Your task to perform on an android device: change keyboard looks Image 0: 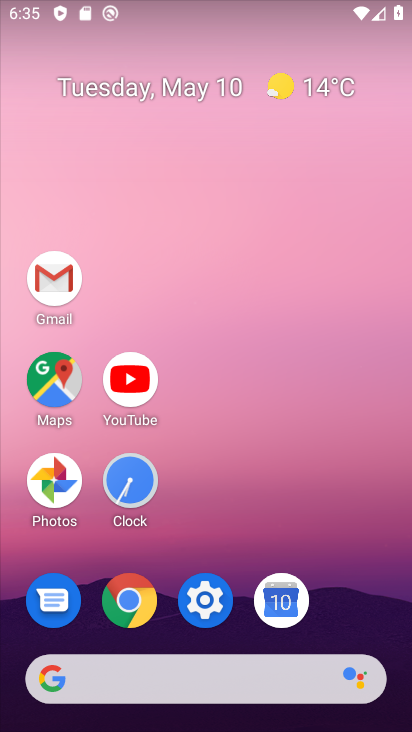
Step 0: click (208, 607)
Your task to perform on an android device: change keyboard looks Image 1: 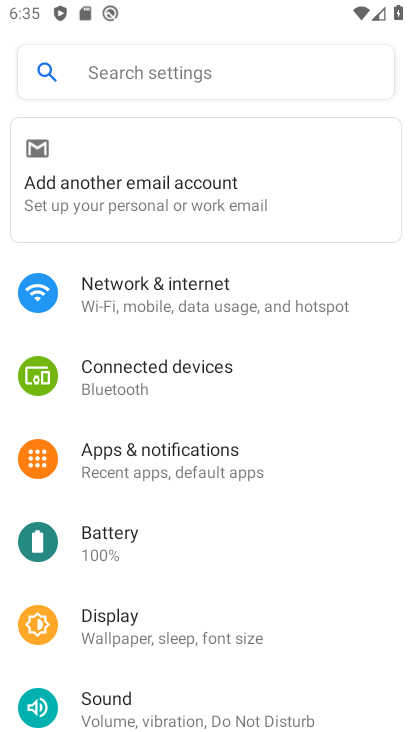
Step 1: drag from (251, 589) to (237, 101)
Your task to perform on an android device: change keyboard looks Image 2: 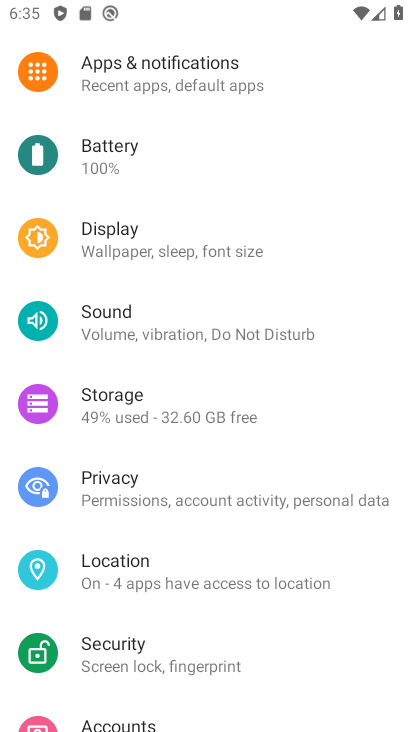
Step 2: drag from (193, 595) to (176, 139)
Your task to perform on an android device: change keyboard looks Image 3: 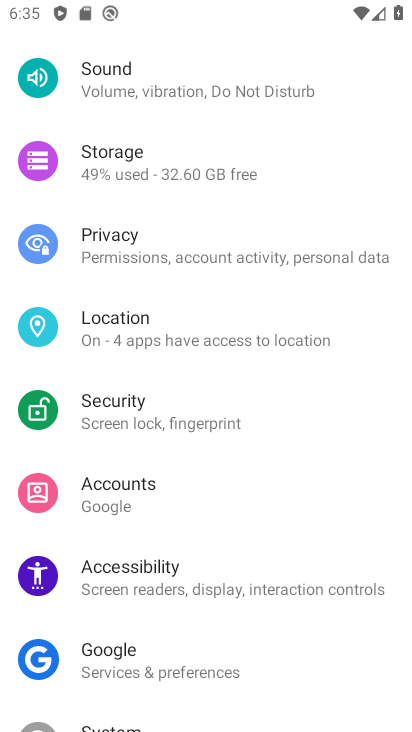
Step 3: drag from (213, 622) to (182, 204)
Your task to perform on an android device: change keyboard looks Image 4: 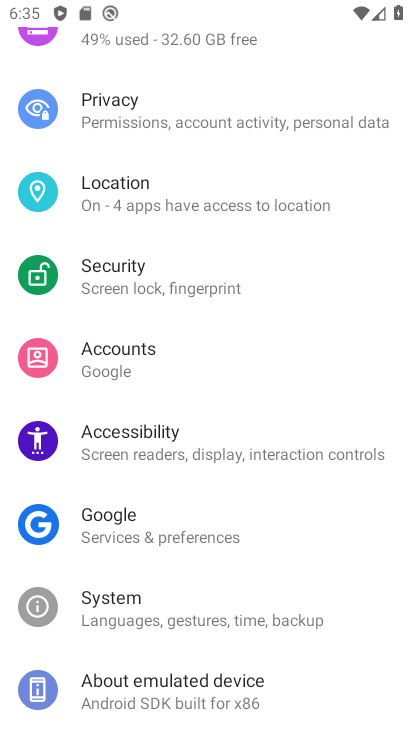
Step 4: click (118, 589)
Your task to perform on an android device: change keyboard looks Image 5: 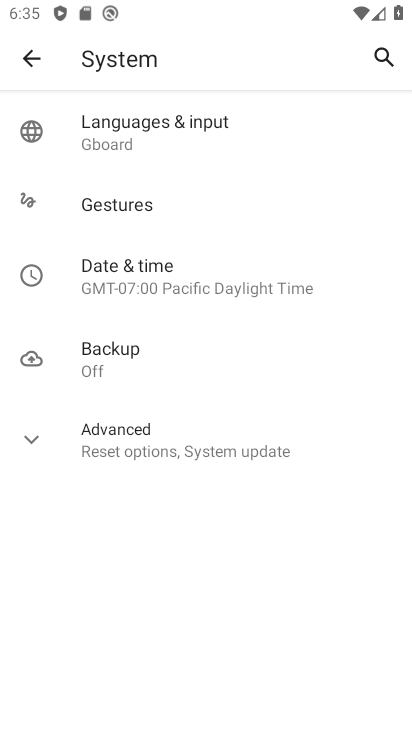
Step 5: click (111, 117)
Your task to perform on an android device: change keyboard looks Image 6: 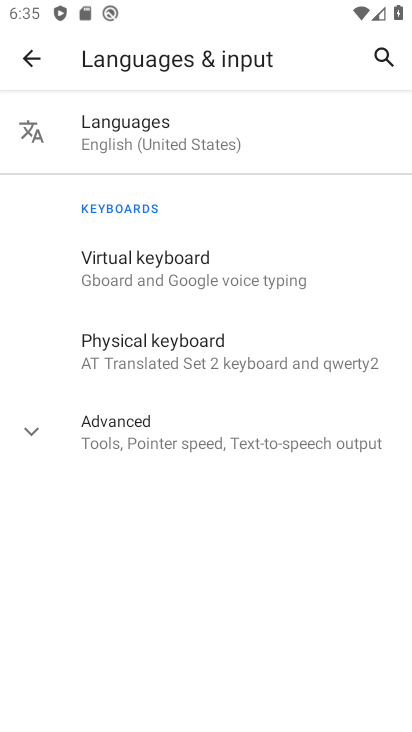
Step 6: click (111, 257)
Your task to perform on an android device: change keyboard looks Image 7: 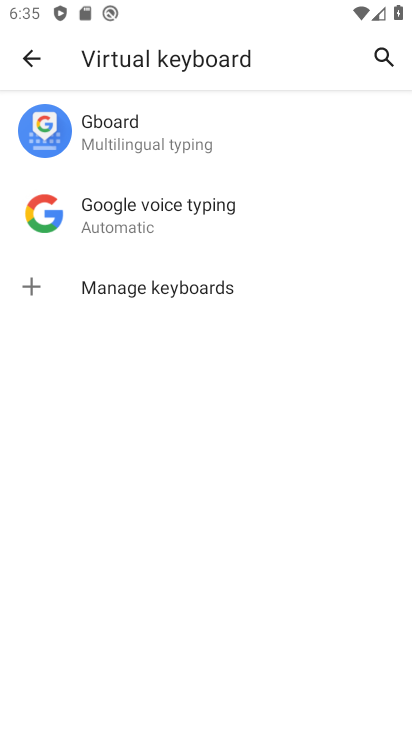
Step 7: click (116, 122)
Your task to perform on an android device: change keyboard looks Image 8: 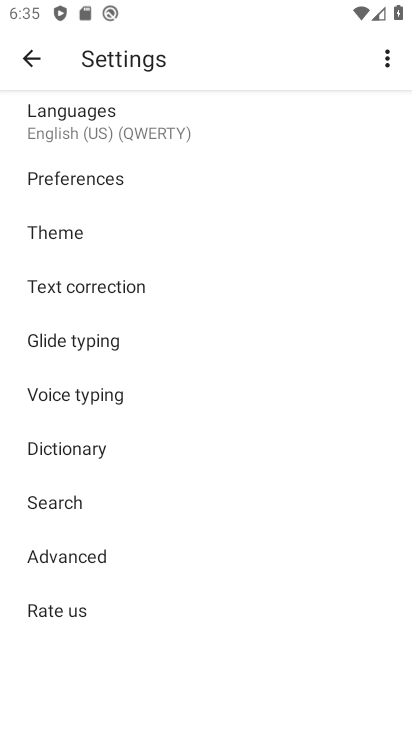
Step 8: click (58, 231)
Your task to perform on an android device: change keyboard looks Image 9: 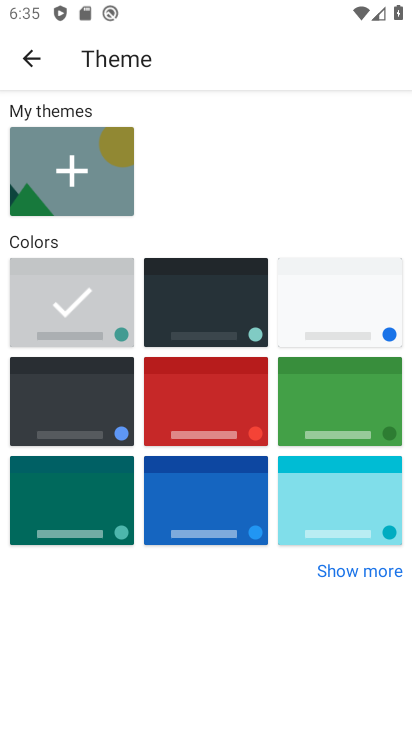
Step 9: click (337, 370)
Your task to perform on an android device: change keyboard looks Image 10: 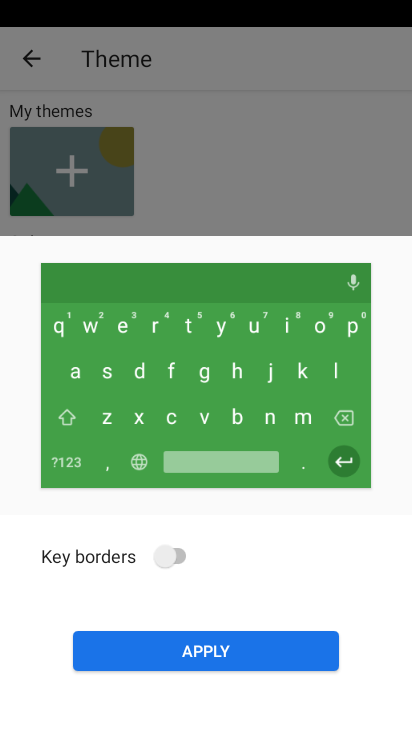
Step 10: click (200, 654)
Your task to perform on an android device: change keyboard looks Image 11: 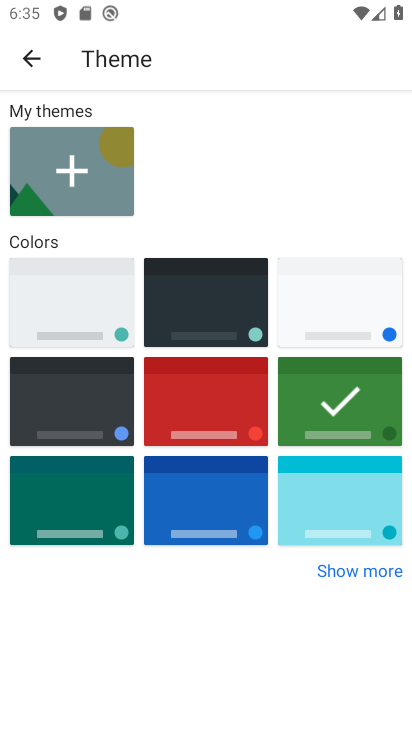
Step 11: task complete